Your task to perform on an android device: Go to wifi settings Image 0: 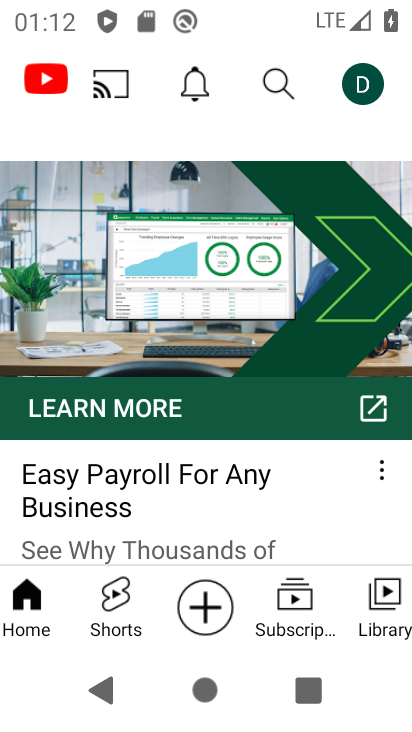
Step 0: press home button
Your task to perform on an android device: Go to wifi settings Image 1: 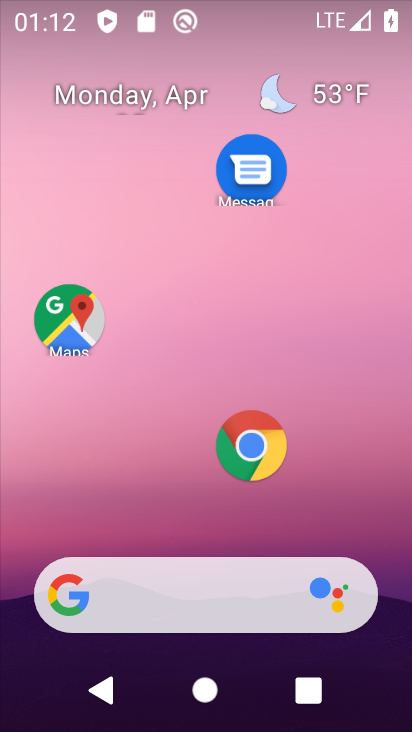
Step 1: drag from (173, 402) to (220, 8)
Your task to perform on an android device: Go to wifi settings Image 2: 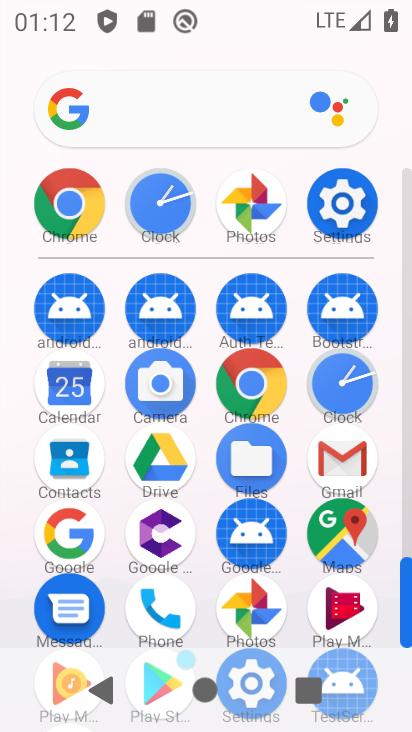
Step 2: click (339, 192)
Your task to perform on an android device: Go to wifi settings Image 3: 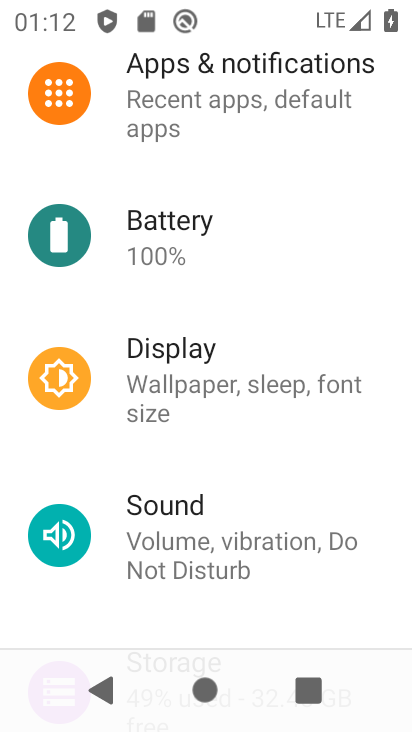
Step 3: drag from (200, 185) to (182, 604)
Your task to perform on an android device: Go to wifi settings Image 4: 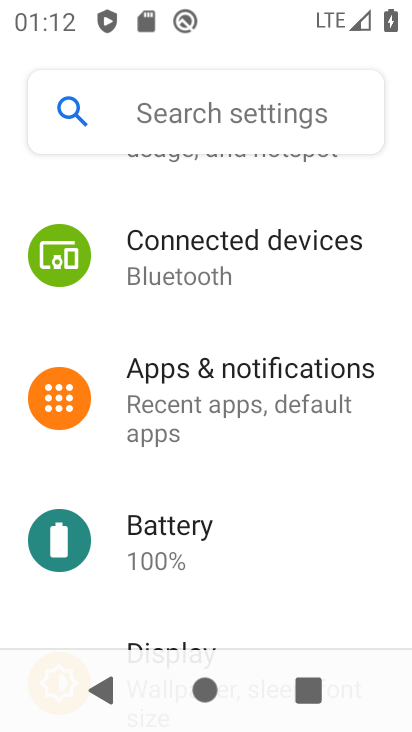
Step 4: drag from (187, 274) to (187, 620)
Your task to perform on an android device: Go to wifi settings Image 5: 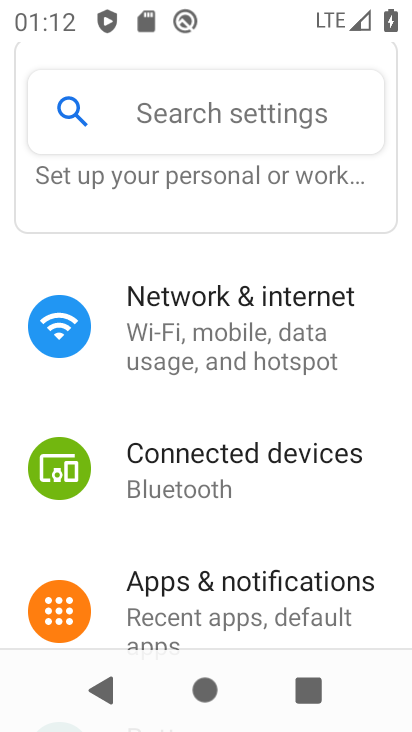
Step 5: click (213, 348)
Your task to perform on an android device: Go to wifi settings Image 6: 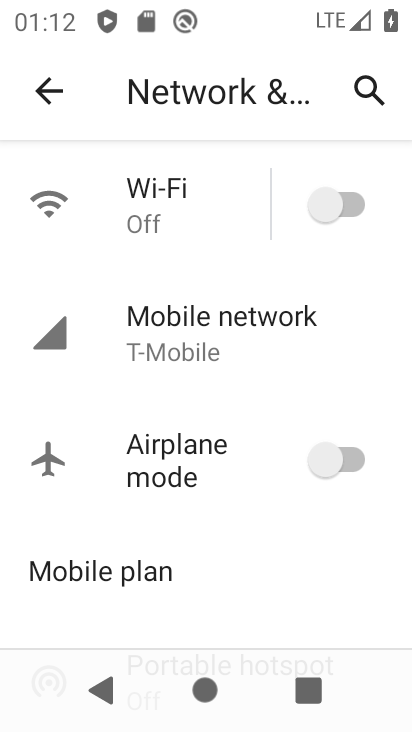
Step 6: click (174, 202)
Your task to perform on an android device: Go to wifi settings Image 7: 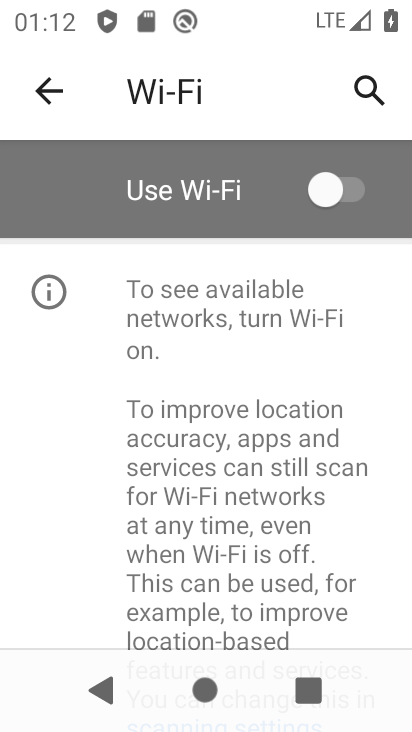
Step 7: task complete